Your task to perform on an android device: add a contact in the contacts app Image 0: 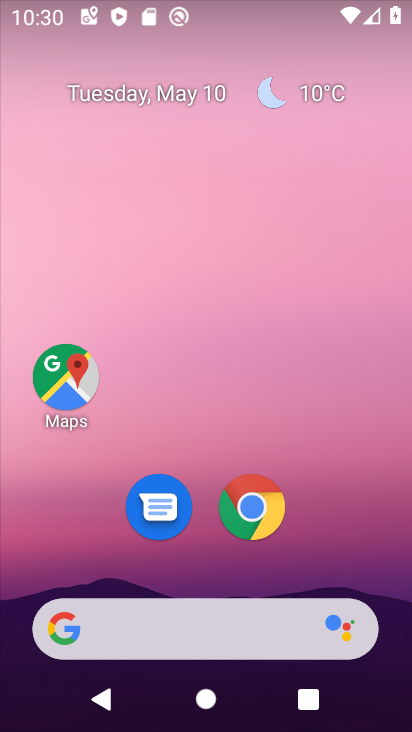
Step 0: drag from (312, 554) to (310, 176)
Your task to perform on an android device: add a contact in the contacts app Image 1: 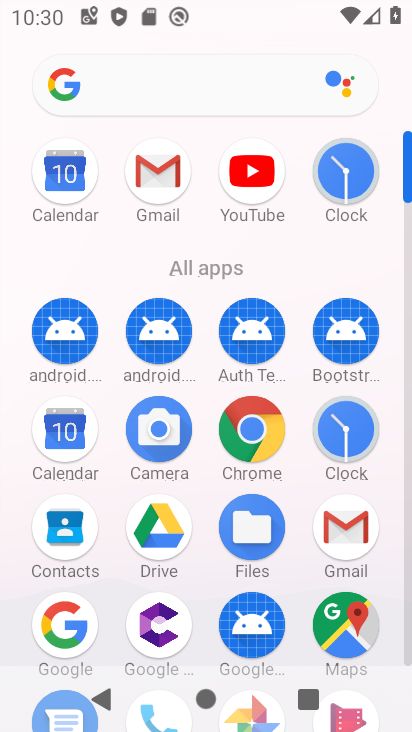
Step 1: click (74, 546)
Your task to perform on an android device: add a contact in the contacts app Image 2: 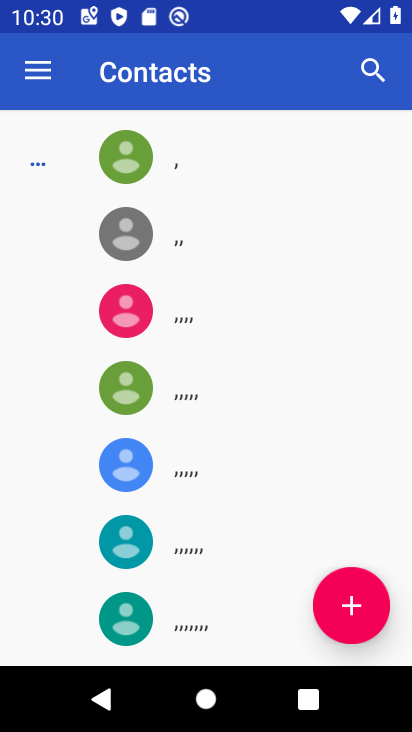
Step 2: click (352, 613)
Your task to perform on an android device: add a contact in the contacts app Image 3: 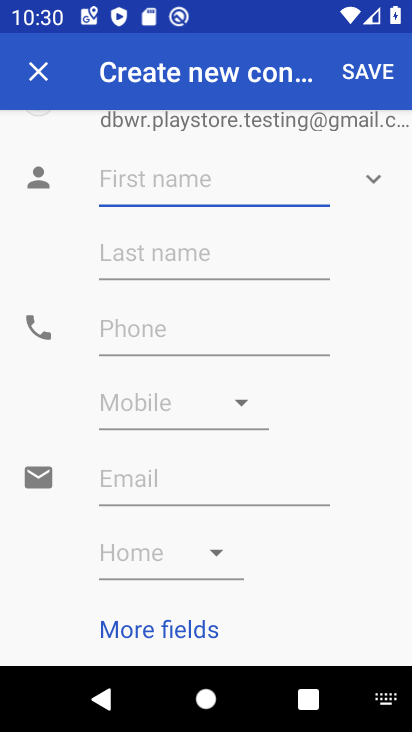
Step 3: click (202, 181)
Your task to perform on an android device: add a contact in the contacts app Image 4: 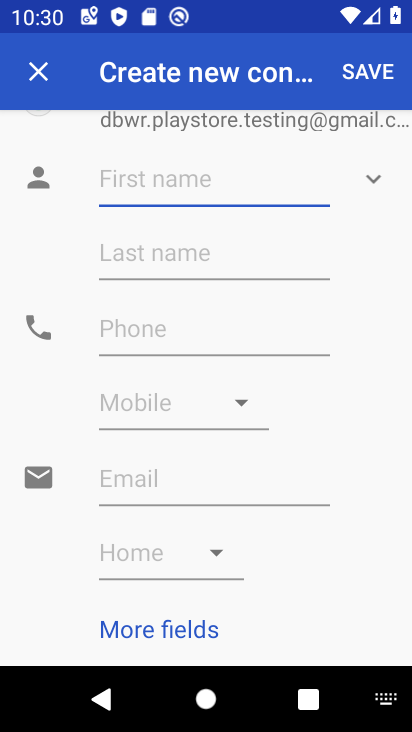
Step 4: type "sonum"
Your task to perform on an android device: add a contact in the contacts app Image 5: 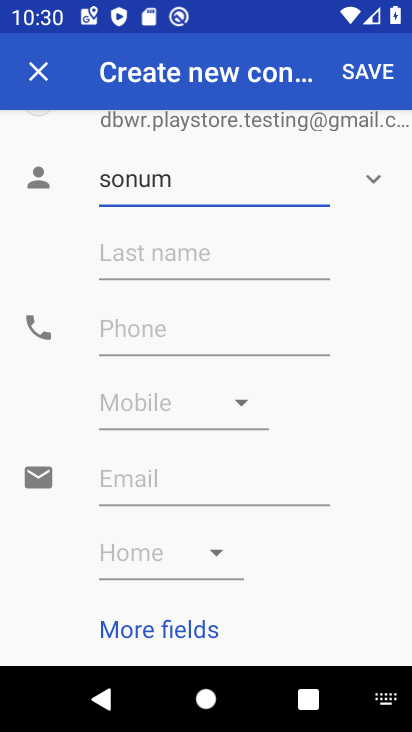
Step 5: click (165, 338)
Your task to perform on an android device: add a contact in the contacts app Image 6: 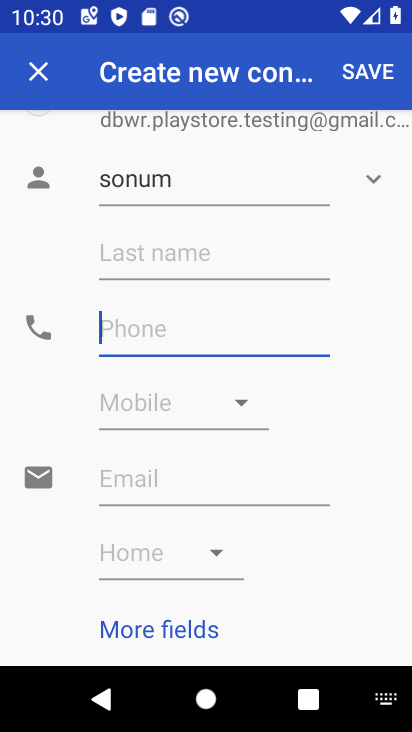
Step 6: type "667546567"
Your task to perform on an android device: add a contact in the contacts app Image 7: 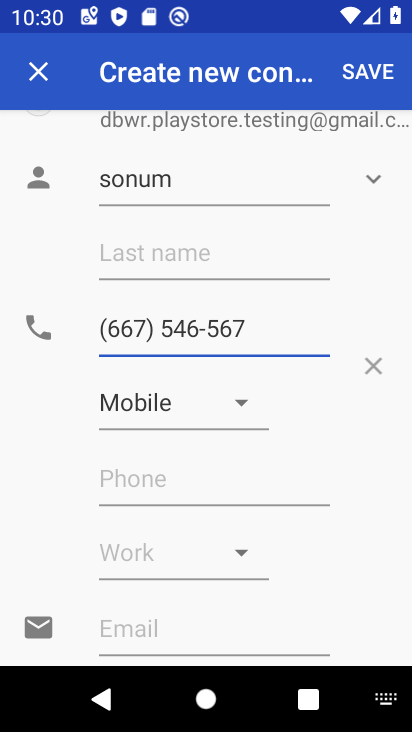
Step 7: click (375, 69)
Your task to perform on an android device: add a contact in the contacts app Image 8: 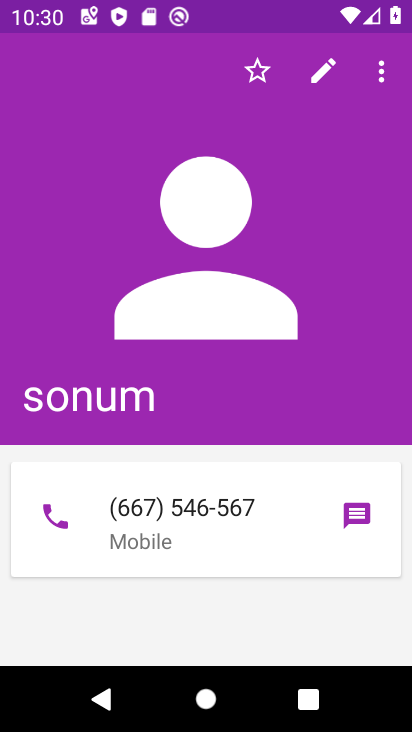
Step 8: task complete